Your task to perform on an android device: Is it going to rain this weekend? Image 0: 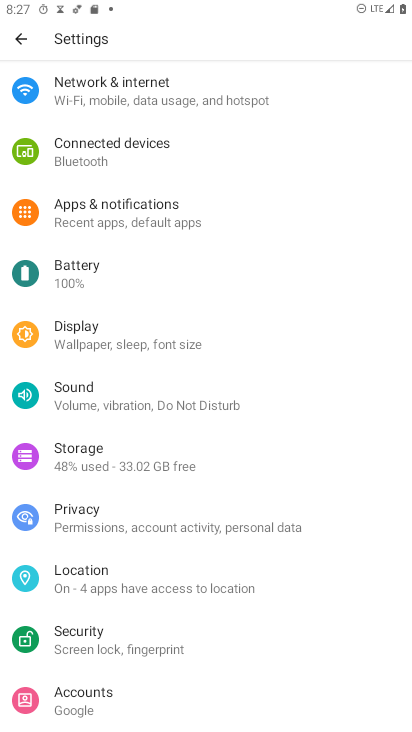
Step 0: press home button
Your task to perform on an android device: Is it going to rain this weekend? Image 1: 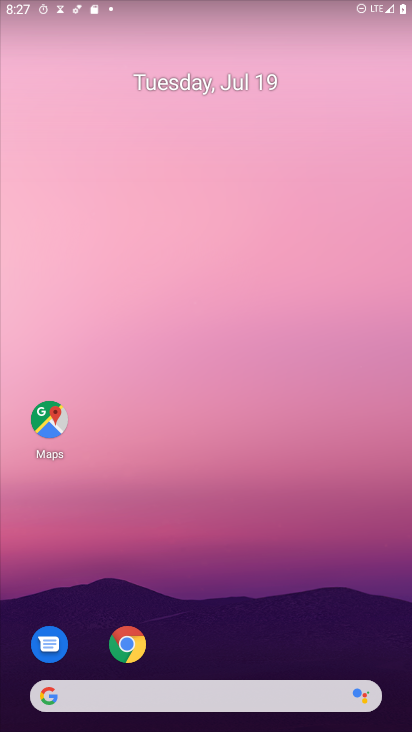
Step 1: click (137, 695)
Your task to perform on an android device: Is it going to rain this weekend? Image 2: 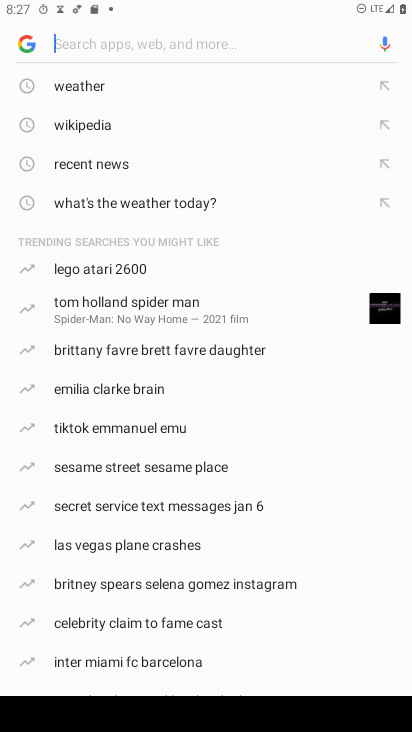
Step 2: type "Is it going to rain this weekend?"
Your task to perform on an android device: Is it going to rain this weekend? Image 3: 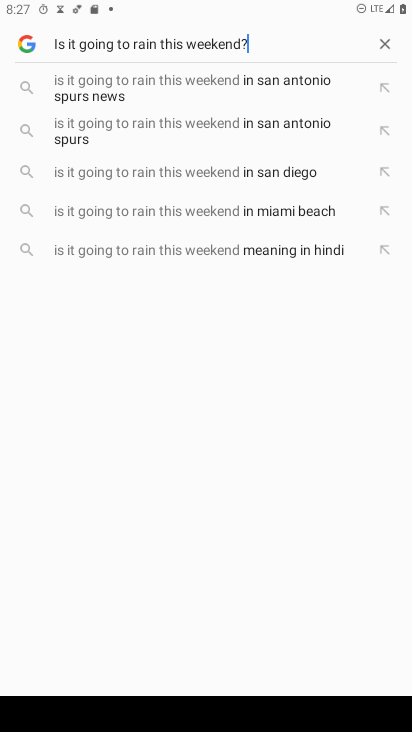
Step 3: task complete